Your task to perform on an android device: toggle improve location accuracy Image 0: 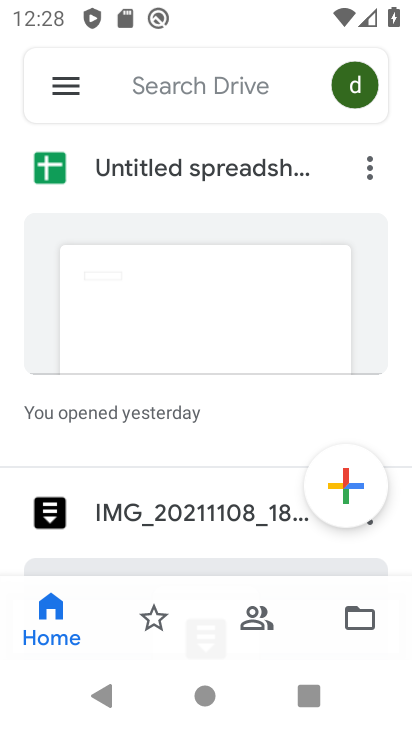
Step 0: press home button
Your task to perform on an android device: toggle improve location accuracy Image 1: 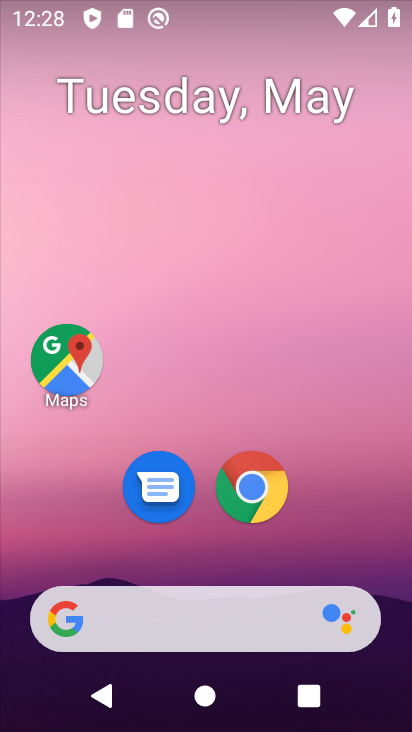
Step 1: drag from (210, 537) to (210, 43)
Your task to perform on an android device: toggle improve location accuracy Image 2: 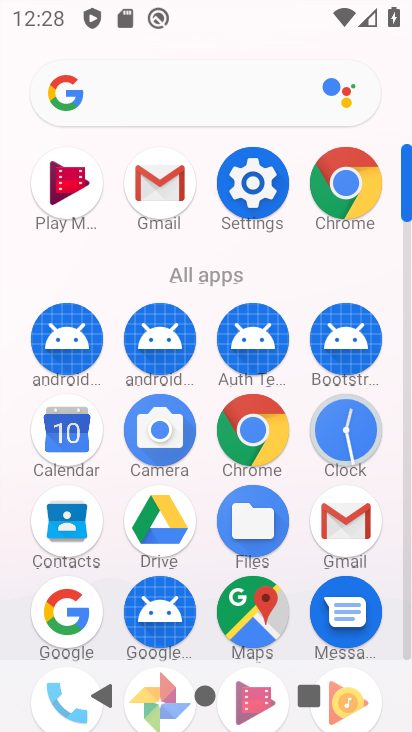
Step 2: click (256, 177)
Your task to perform on an android device: toggle improve location accuracy Image 3: 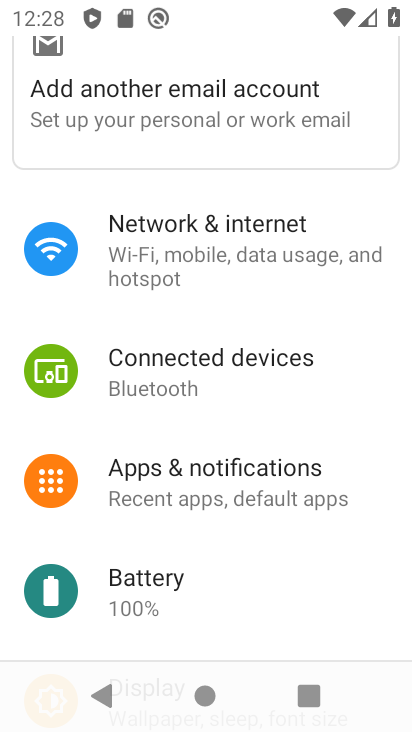
Step 3: drag from (262, 618) to (251, 321)
Your task to perform on an android device: toggle improve location accuracy Image 4: 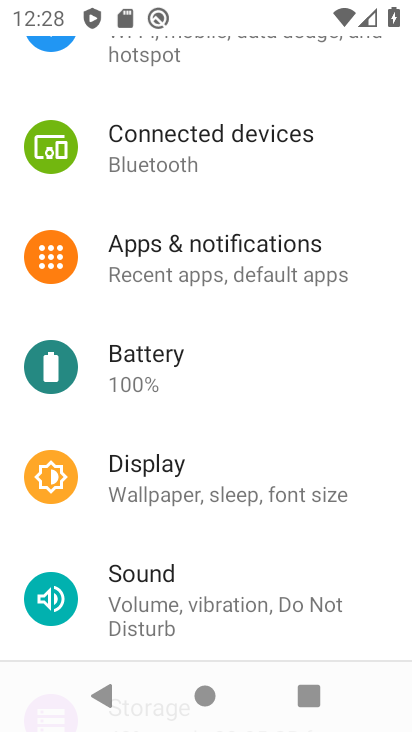
Step 4: drag from (266, 546) to (258, 273)
Your task to perform on an android device: toggle improve location accuracy Image 5: 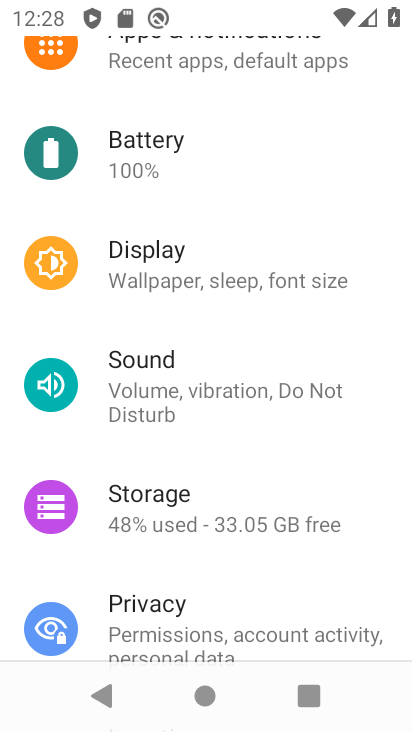
Step 5: drag from (247, 604) to (253, 265)
Your task to perform on an android device: toggle improve location accuracy Image 6: 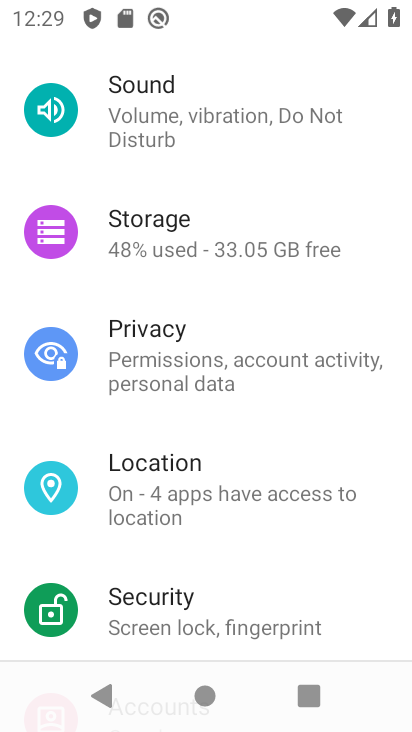
Step 6: click (216, 492)
Your task to perform on an android device: toggle improve location accuracy Image 7: 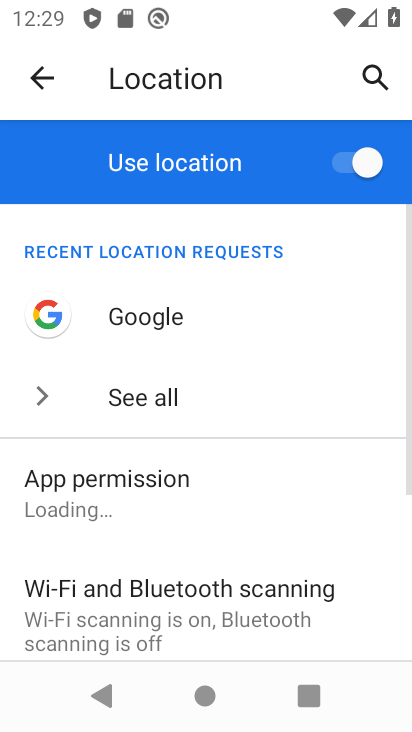
Step 7: drag from (286, 554) to (276, 321)
Your task to perform on an android device: toggle improve location accuracy Image 8: 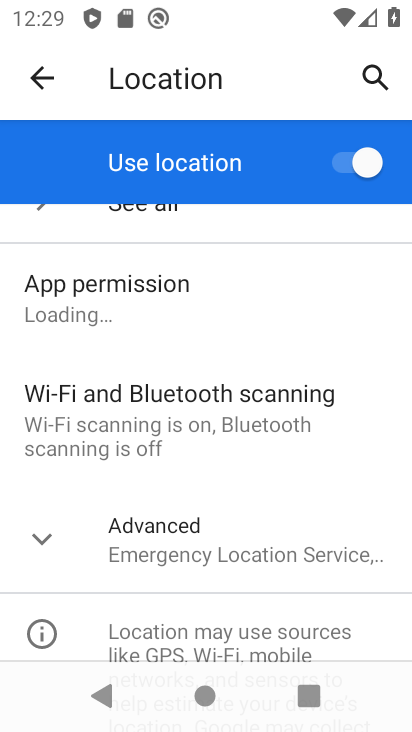
Step 8: click (220, 564)
Your task to perform on an android device: toggle improve location accuracy Image 9: 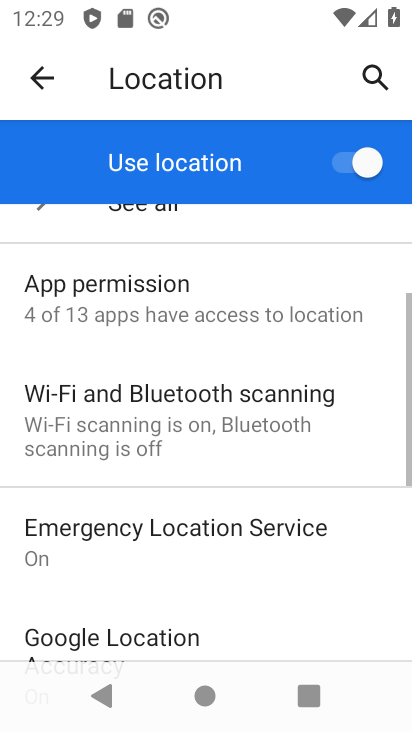
Step 9: drag from (243, 605) to (254, 400)
Your task to perform on an android device: toggle improve location accuracy Image 10: 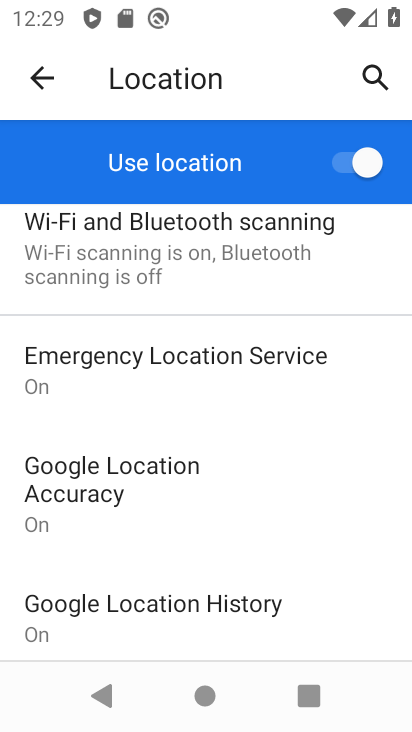
Step 10: drag from (266, 556) to (267, 334)
Your task to perform on an android device: toggle improve location accuracy Image 11: 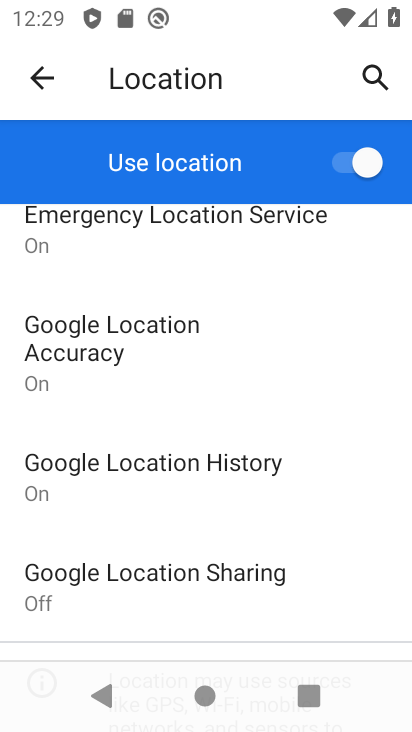
Step 11: drag from (223, 537) to (211, 479)
Your task to perform on an android device: toggle improve location accuracy Image 12: 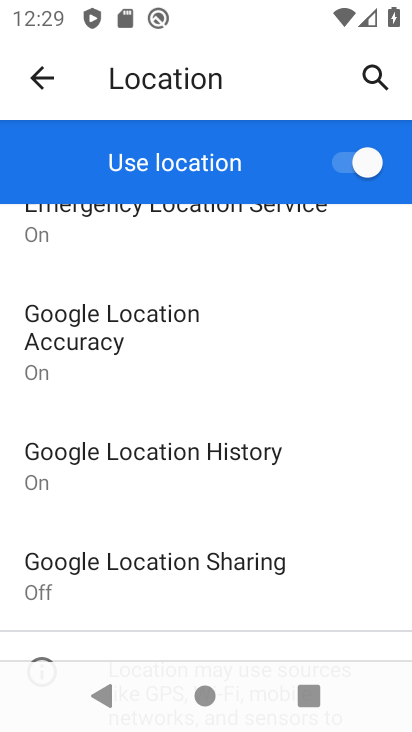
Step 12: click (127, 338)
Your task to perform on an android device: toggle improve location accuracy Image 13: 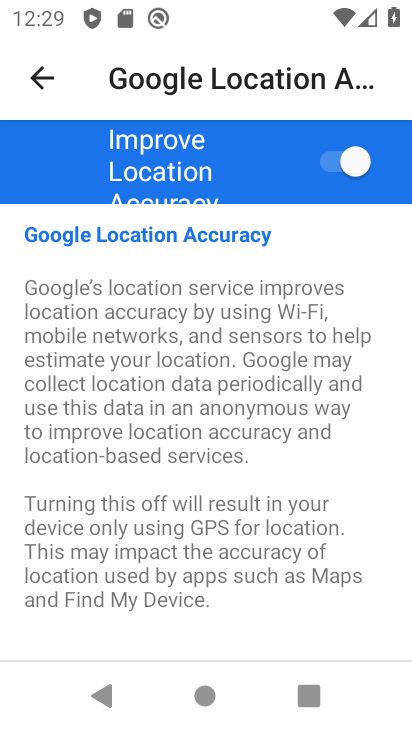
Step 13: click (334, 153)
Your task to perform on an android device: toggle improve location accuracy Image 14: 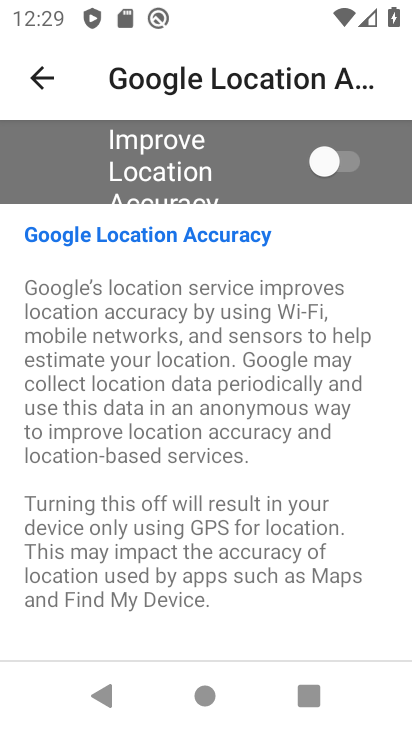
Step 14: task complete